Your task to perform on an android device: turn pop-ups on in chrome Image 0: 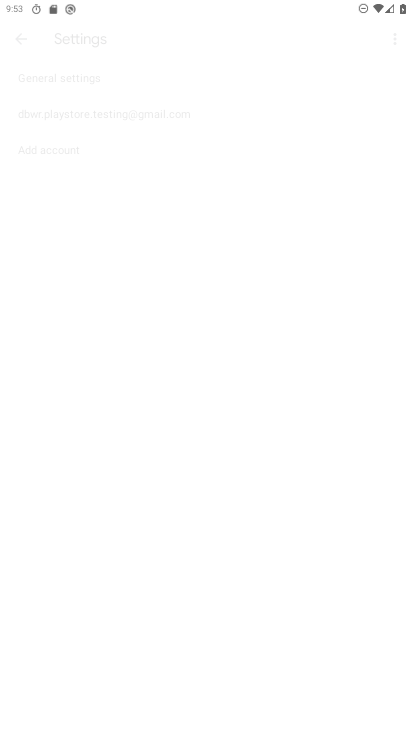
Step 0: drag from (214, 681) to (205, 126)
Your task to perform on an android device: turn pop-ups on in chrome Image 1: 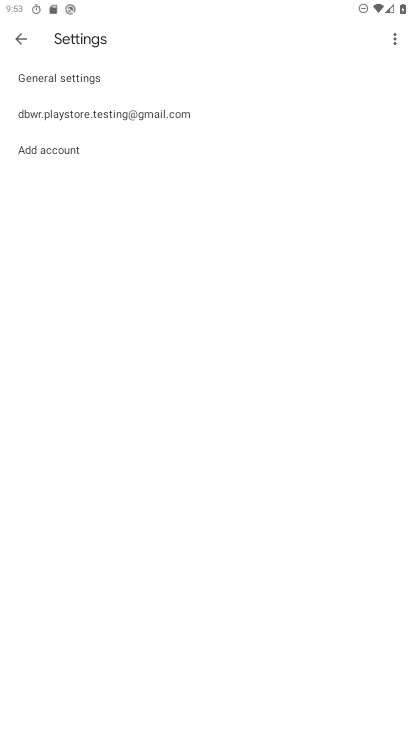
Step 1: press home button
Your task to perform on an android device: turn pop-ups on in chrome Image 2: 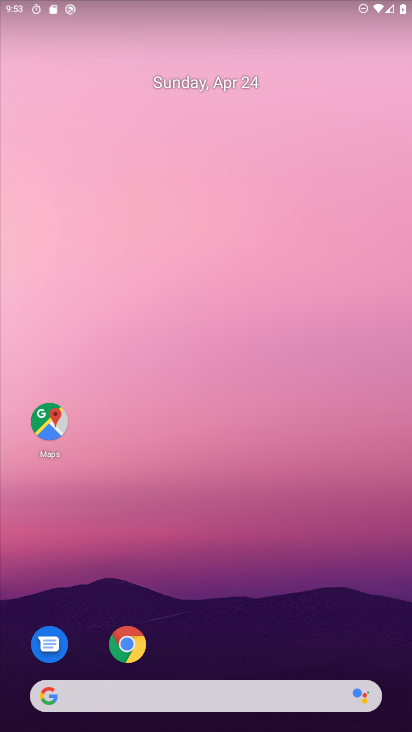
Step 2: drag from (193, 677) to (149, 107)
Your task to perform on an android device: turn pop-ups on in chrome Image 3: 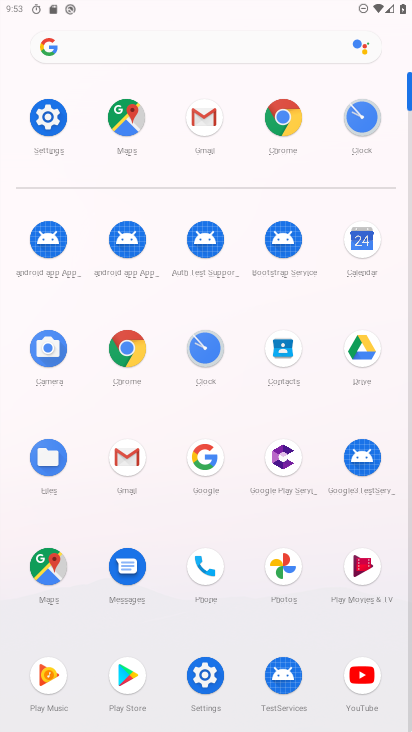
Step 3: click (139, 342)
Your task to perform on an android device: turn pop-ups on in chrome Image 4: 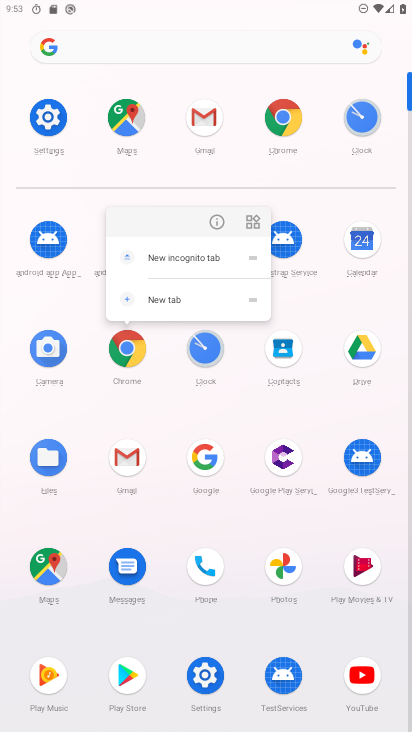
Step 4: click (112, 362)
Your task to perform on an android device: turn pop-ups on in chrome Image 5: 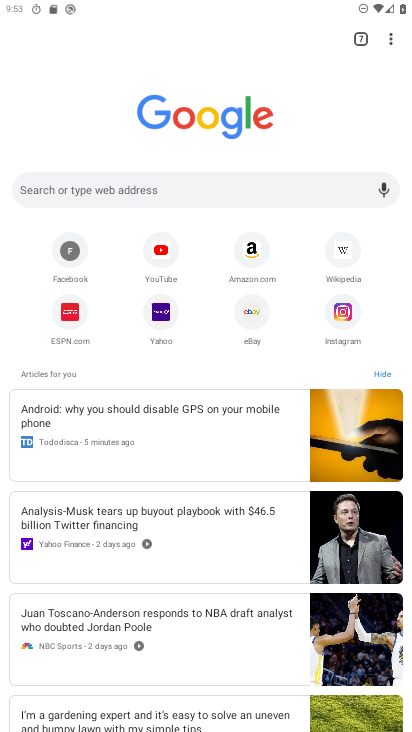
Step 5: drag from (390, 45) to (253, 366)
Your task to perform on an android device: turn pop-ups on in chrome Image 6: 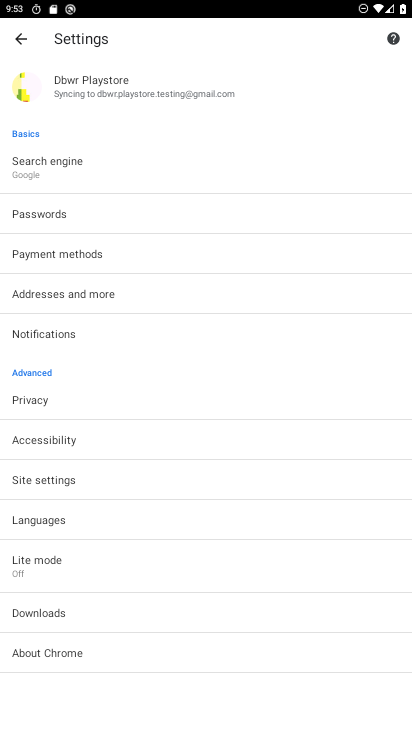
Step 6: click (31, 478)
Your task to perform on an android device: turn pop-ups on in chrome Image 7: 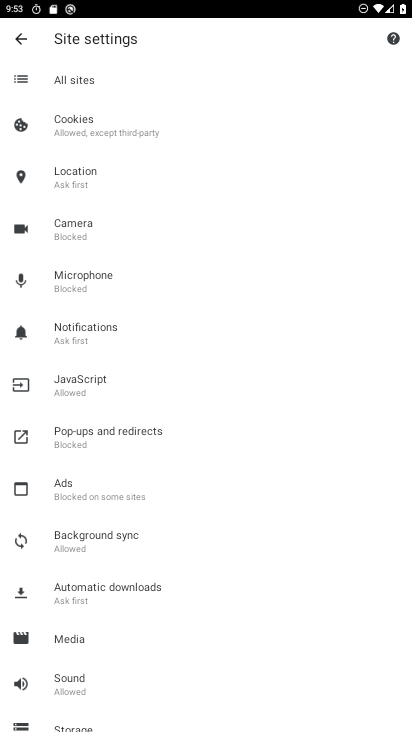
Step 7: click (56, 440)
Your task to perform on an android device: turn pop-ups on in chrome Image 8: 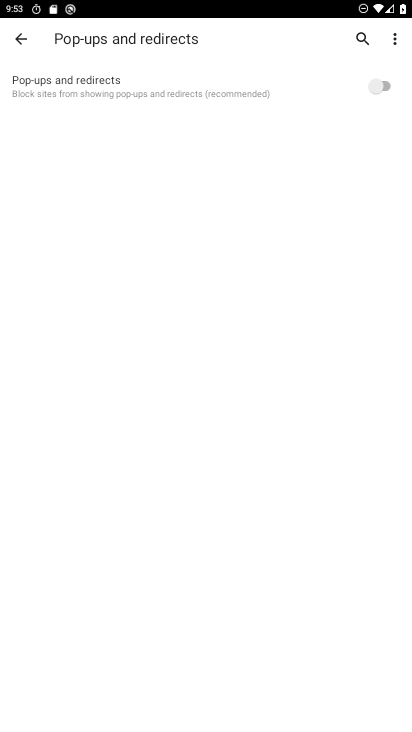
Step 8: click (382, 81)
Your task to perform on an android device: turn pop-ups on in chrome Image 9: 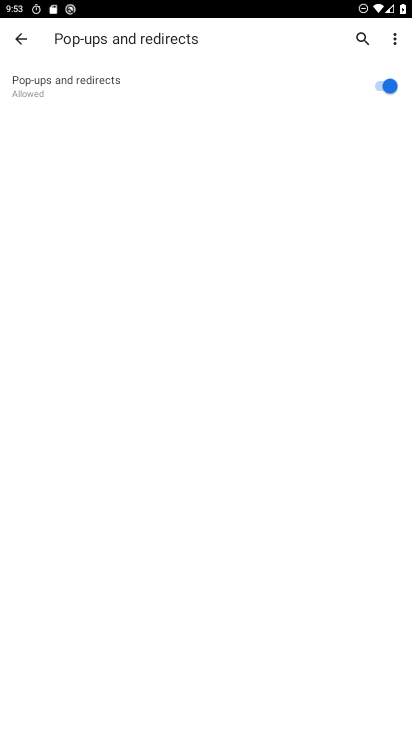
Step 9: task complete